Your task to perform on an android device: Open display settings Image 0: 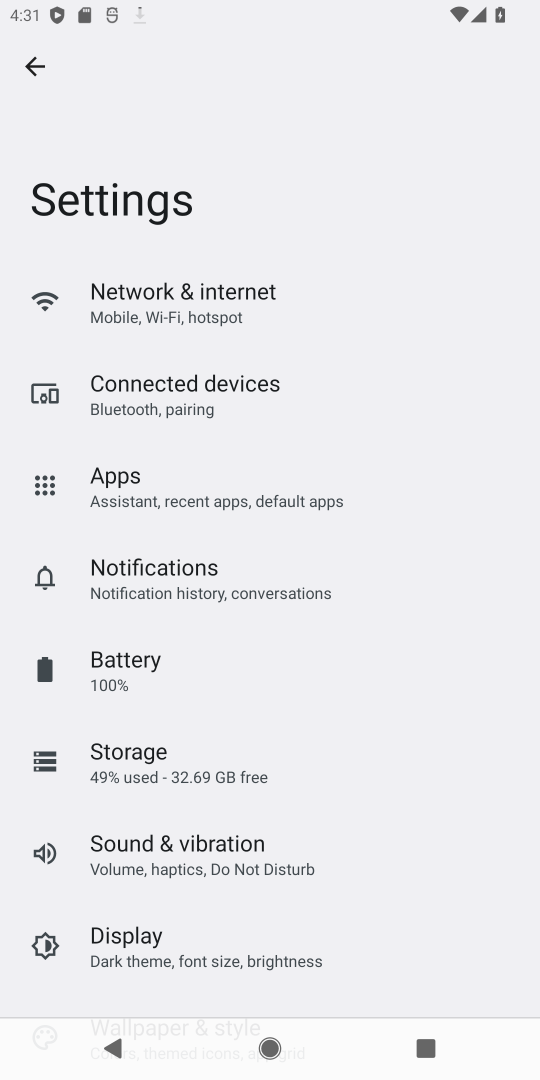
Step 0: click (171, 926)
Your task to perform on an android device: Open display settings Image 1: 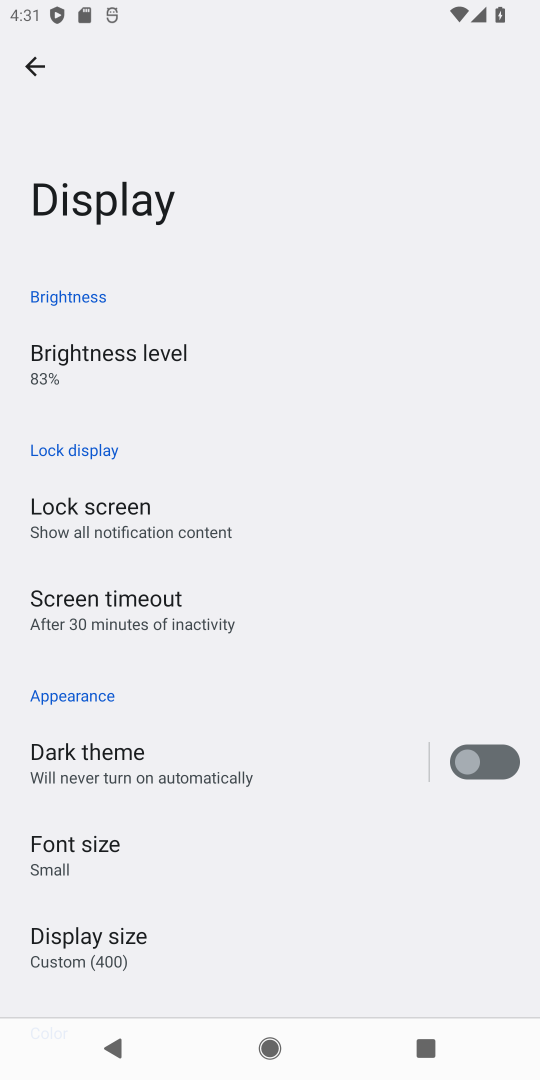
Step 1: task complete